Your task to perform on an android device: What's the weather today? Image 0: 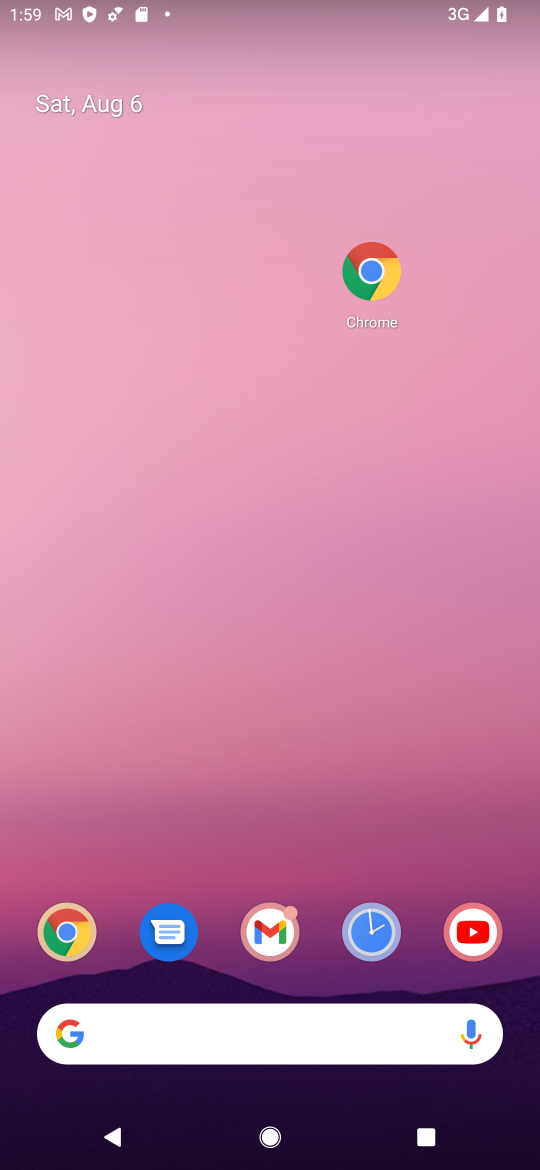
Step 0: drag from (317, 969) to (318, 102)
Your task to perform on an android device: What's the weather today? Image 1: 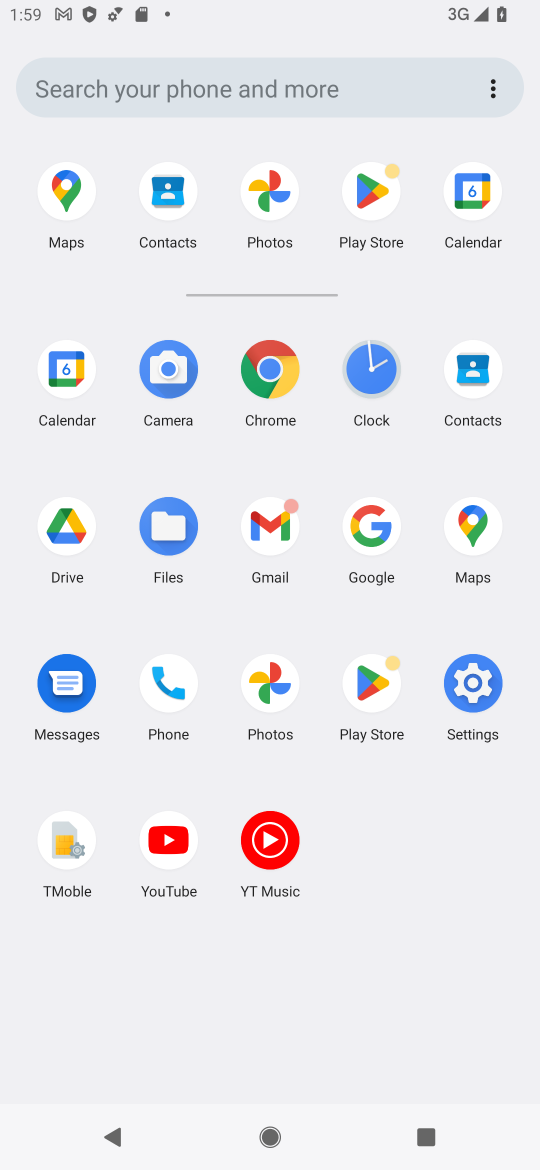
Step 1: click (256, 353)
Your task to perform on an android device: What's the weather today? Image 2: 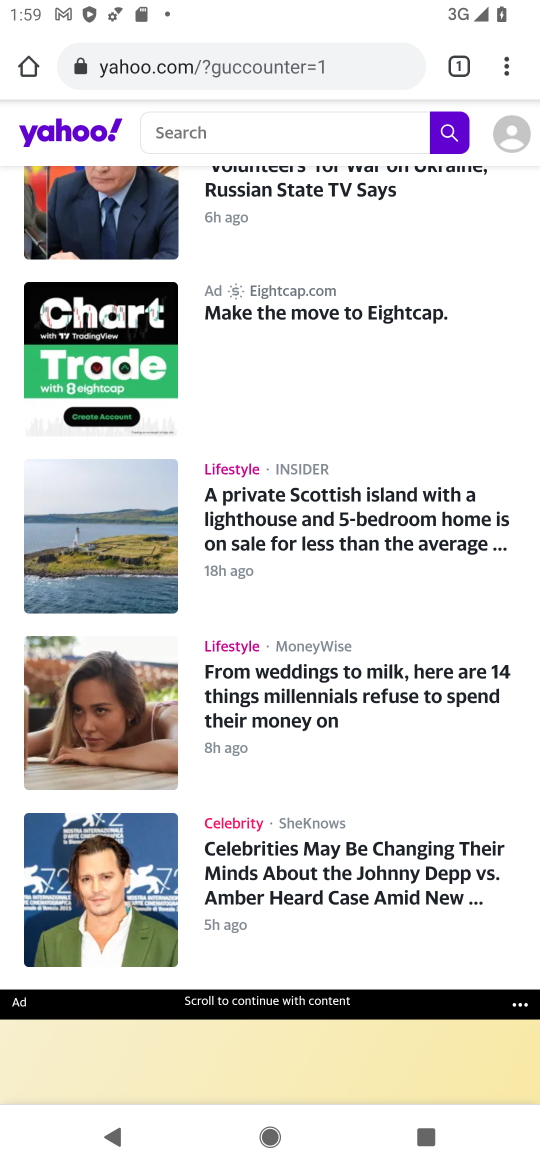
Step 2: click (253, 56)
Your task to perform on an android device: What's the weather today? Image 3: 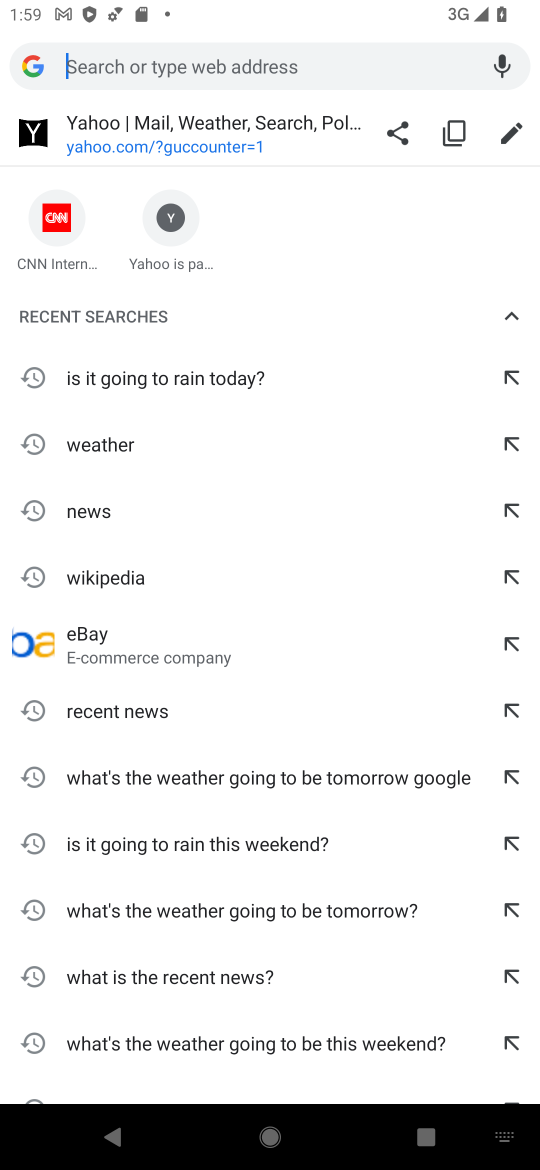
Step 3: type "What's the weather today?"
Your task to perform on an android device: What's the weather today? Image 4: 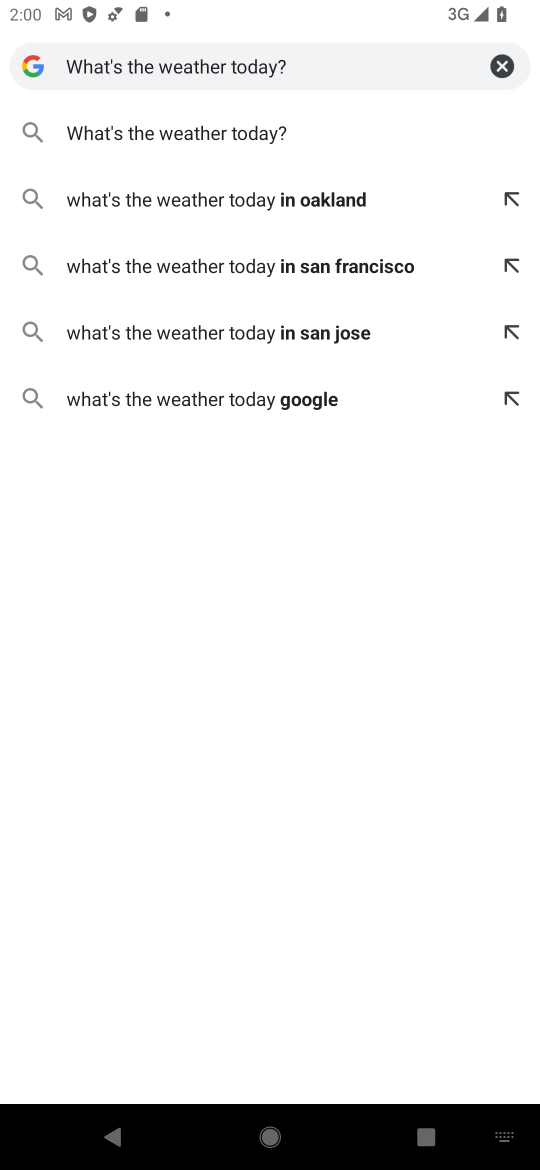
Step 4: click (257, 136)
Your task to perform on an android device: What's the weather today? Image 5: 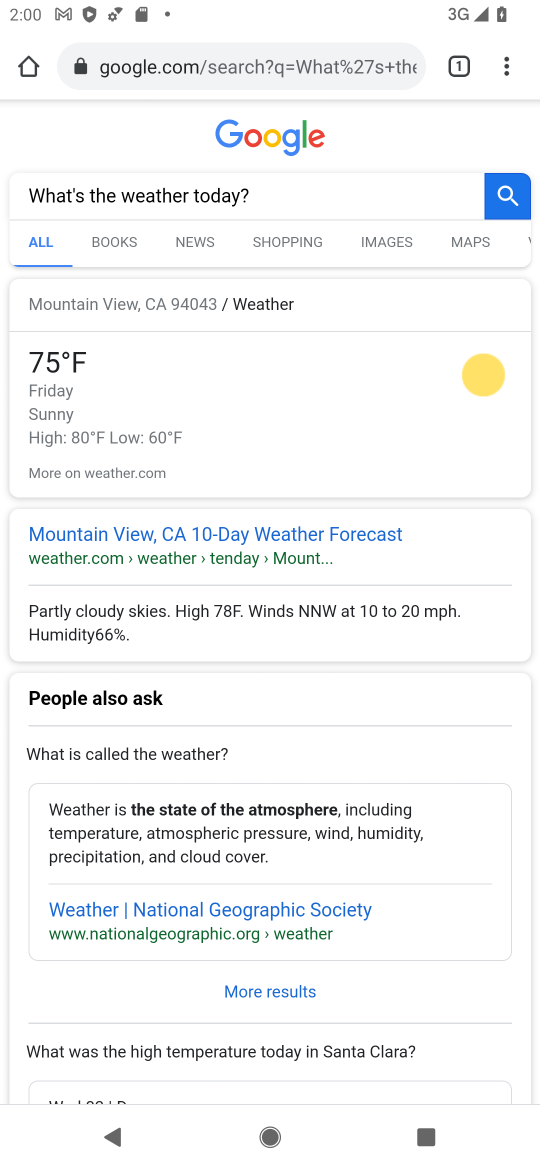
Step 5: task complete